Your task to perform on an android device: set default search engine in the chrome app Image 0: 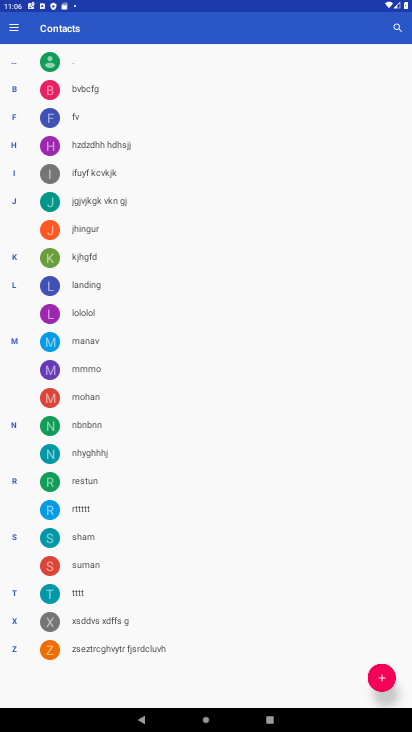
Step 0: press home button
Your task to perform on an android device: set default search engine in the chrome app Image 1: 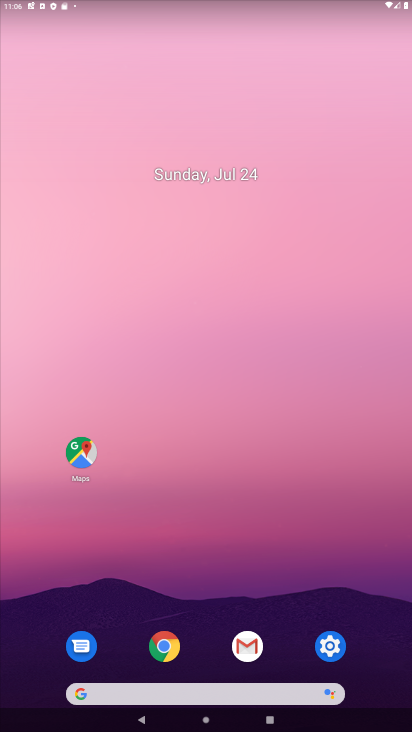
Step 1: click (177, 640)
Your task to perform on an android device: set default search engine in the chrome app Image 2: 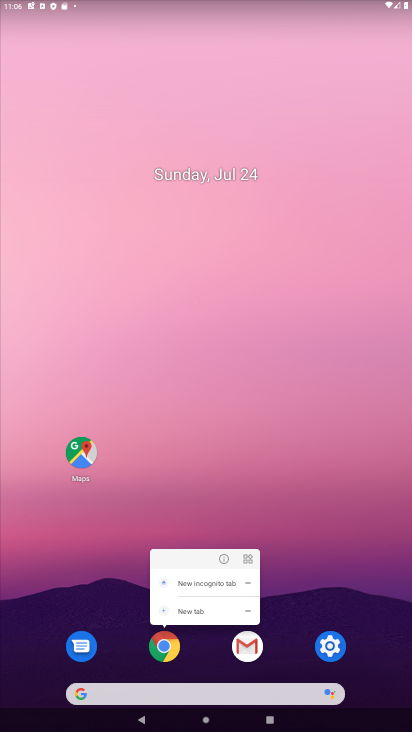
Step 2: click (162, 653)
Your task to perform on an android device: set default search engine in the chrome app Image 3: 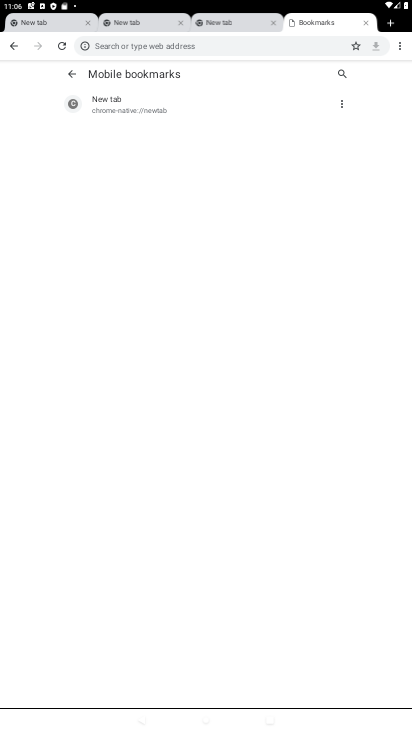
Step 3: click (396, 48)
Your task to perform on an android device: set default search engine in the chrome app Image 4: 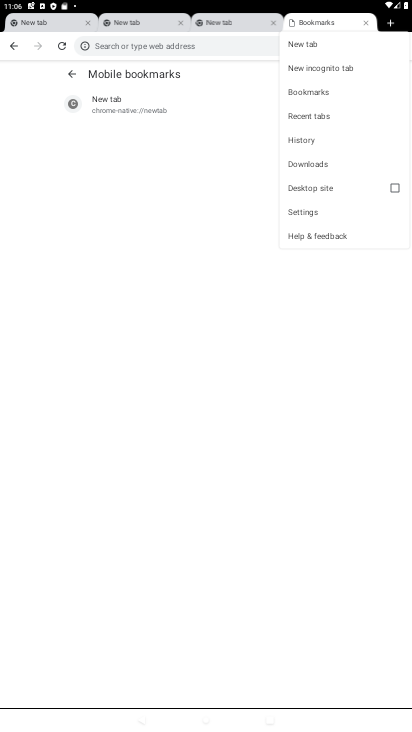
Step 4: click (304, 215)
Your task to perform on an android device: set default search engine in the chrome app Image 5: 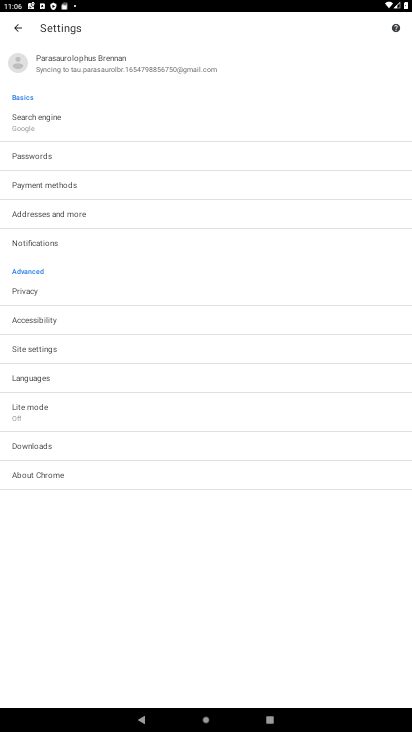
Step 5: click (78, 124)
Your task to perform on an android device: set default search engine in the chrome app Image 6: 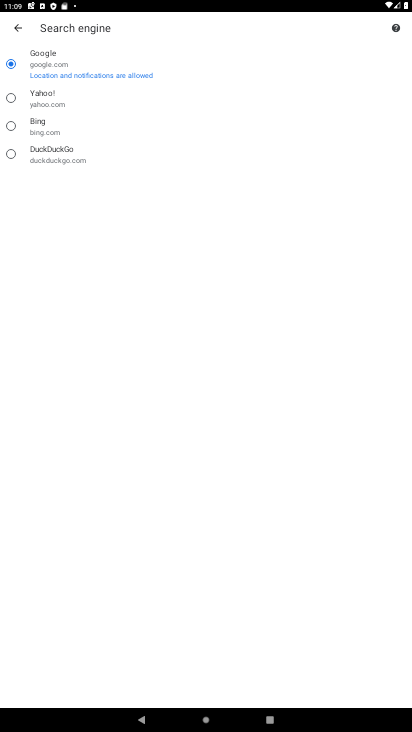
Step 6: task complete